Your task to perform on an android device: empty trash in google photos Image 0: 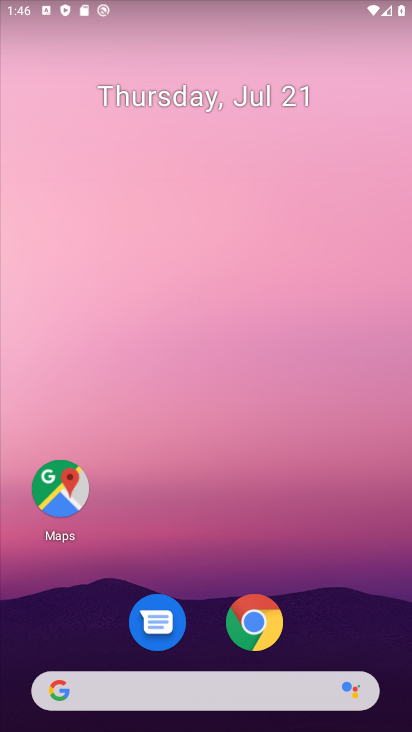
Step 0: drag from (286, 711) to (274, 129)
Your task to perform on an android device: empty trash in google photos Image 1: 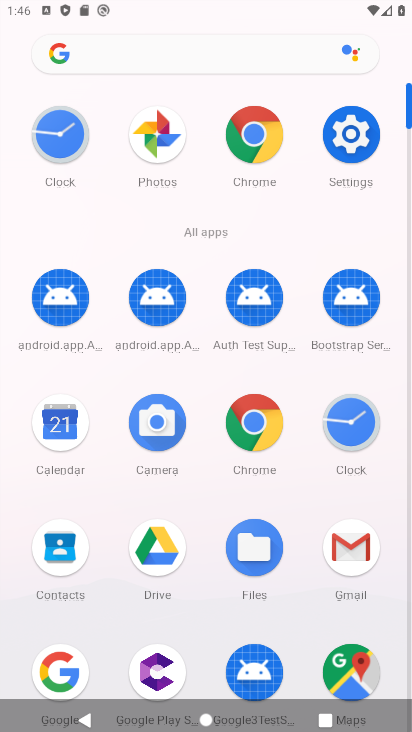
Step 1: drag from (203, 623) to (189, 390)
Your task to perform on an android device: empty trash in google photos Image 2: 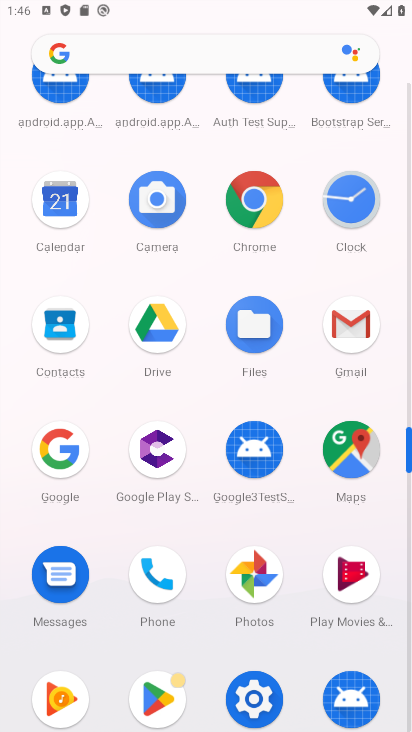
Step 2: click (250, 587)
Your task to perform on an android device: empty trash in google photos Image 3: 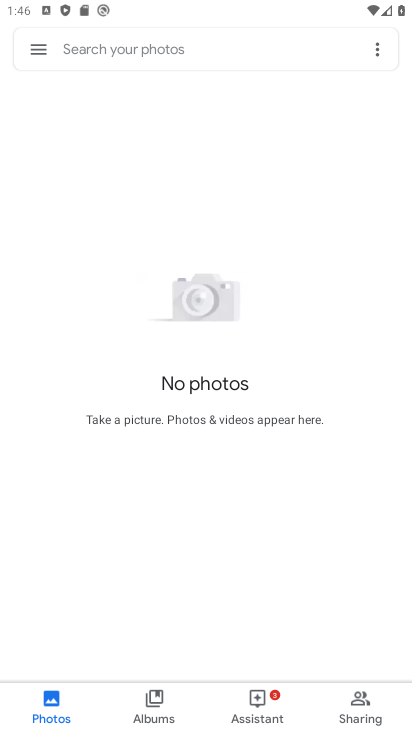
Step 3: click (245, 35)
Your task to perform on an android device: empty trash in google photos Image 4: 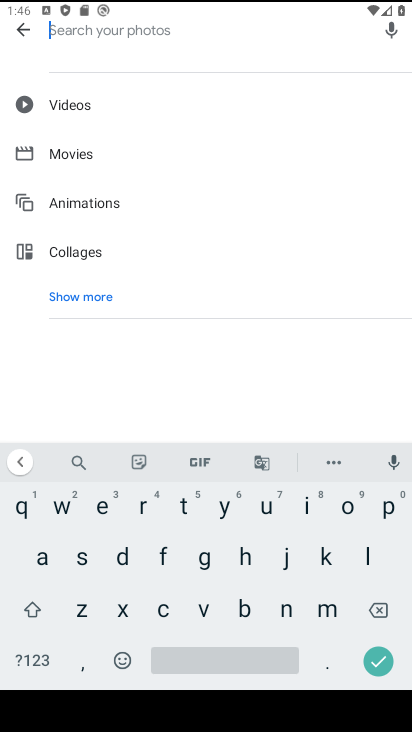
Step 4: click (185, 502)
Your task to perform on an android device: empty trash in google photos Image 5: 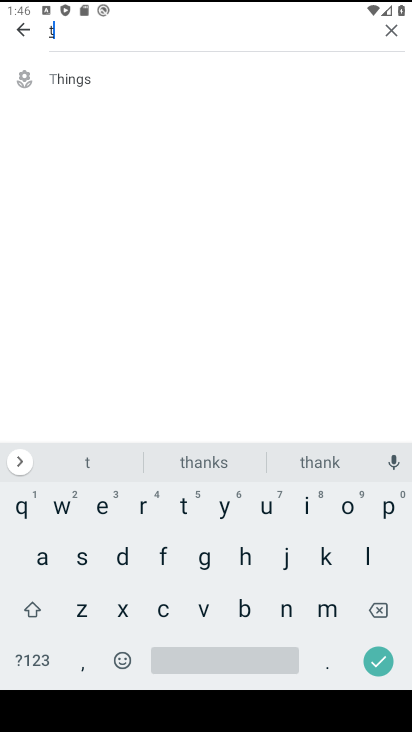
Step 5: click (146, 506)
Your task to perform on an android device: empty trash in google photos Image 6: 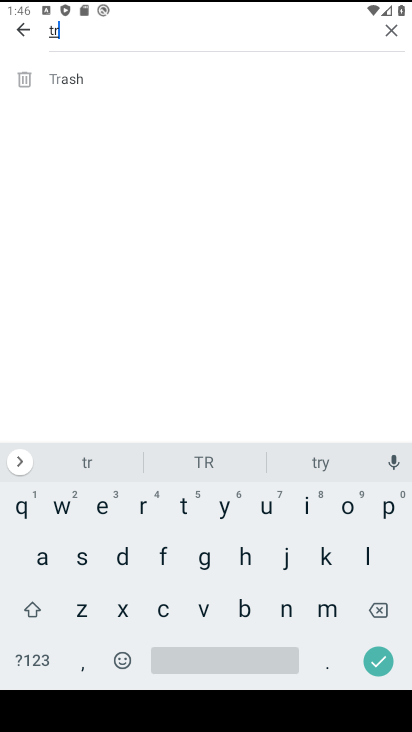
Step 6: click (92, 86)
Your task to perform on an android device: empty trash in google photos Image 7: 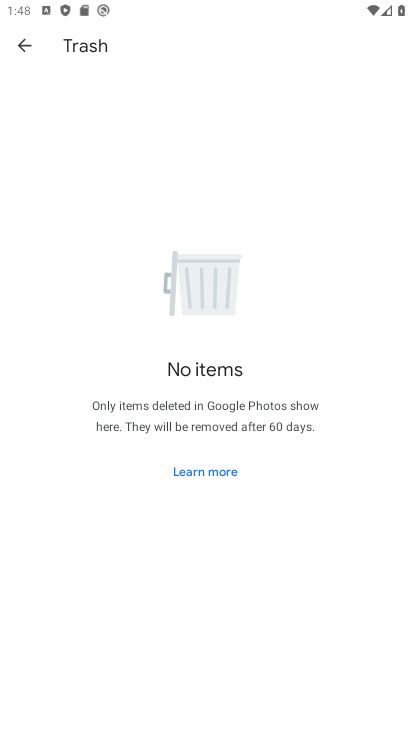
Step 7: task complete